Your task to perform on an android device: change notification settings in the gmail app Image 0: 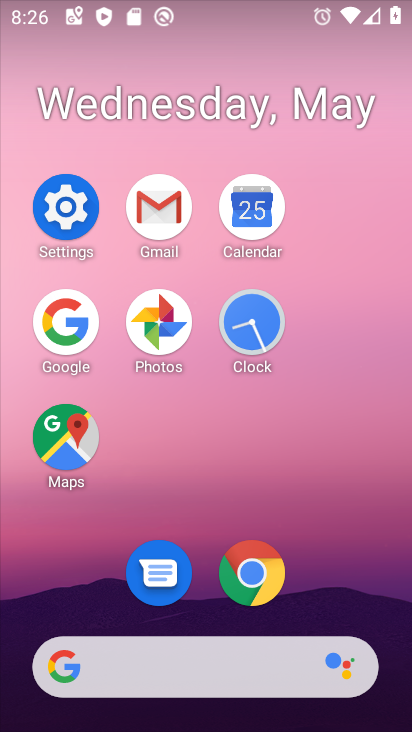
Step 0: click (169, 205)
Your task to perform on an android device: change notification settings in the gmail app Image 1: 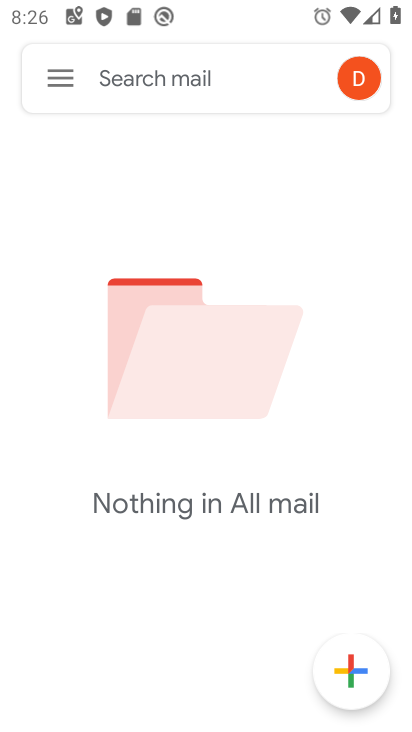
Step 1: click (55, 77)
Your task to perform on an android device: change notification settings in the gmail app Image 2: 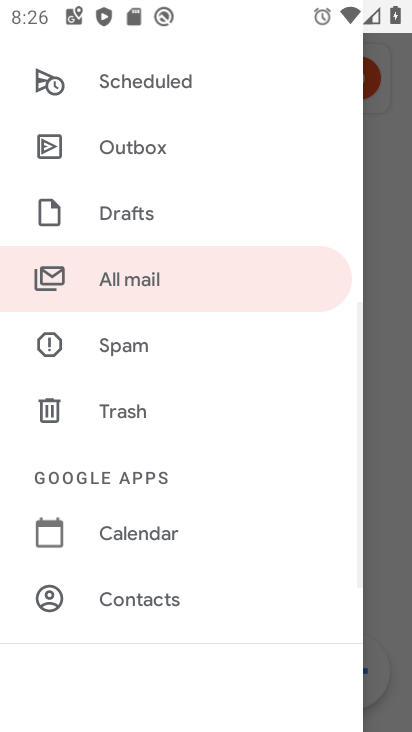
Step 2: drag from (160, 465) to (128, 131)
Your task to perform on an android device: change notification settings in the gmail app Image 3: 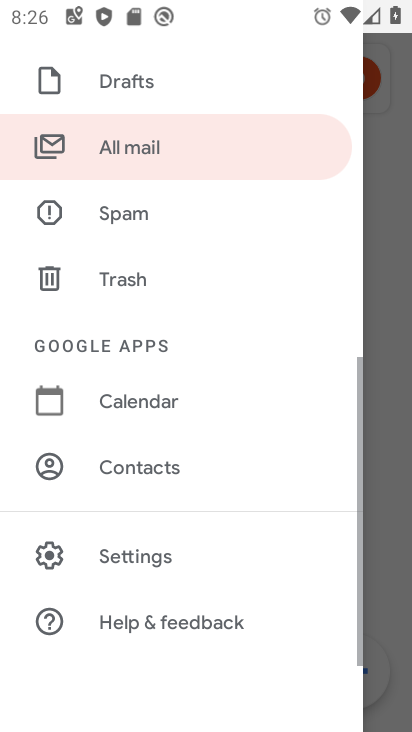
Step 3: click (154, 576)
Your task to perform on an android device: change notification settings in the gmail app Image 4: 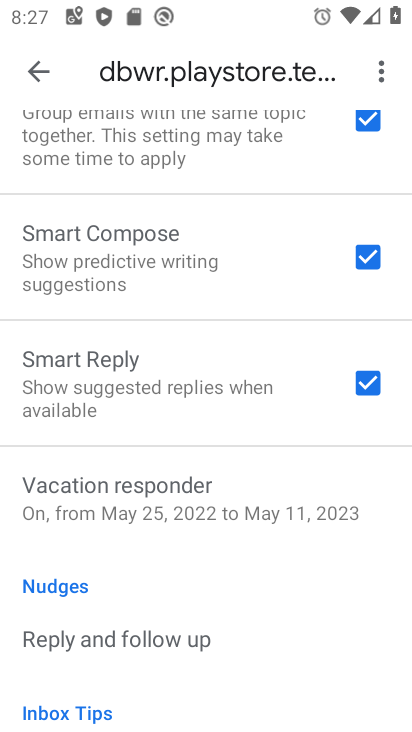
Step 4: drag from (184, 171) to (176, 703)
Your task to perform on an android device: change notification settings in the gmail app Image 5: 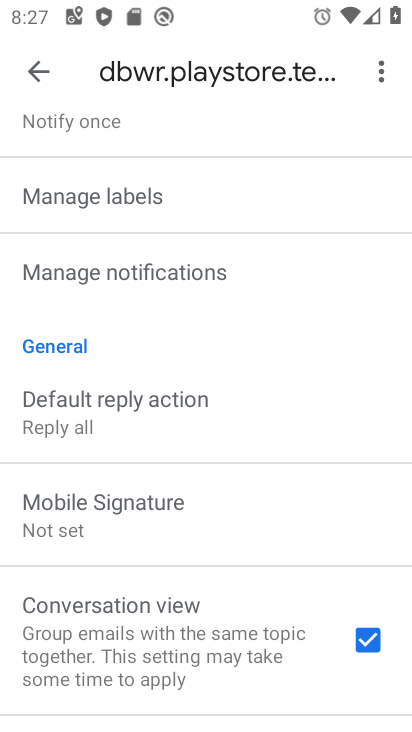
Step 5: click (153, 266)
Your task to perform on an android device: change notification settings in the gmail app Image 6: 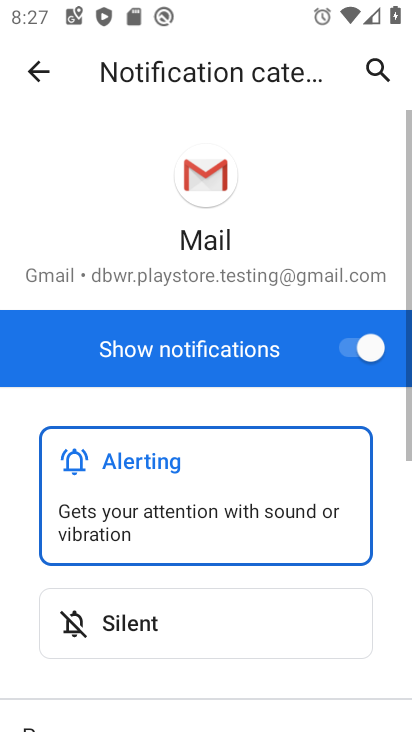
Step 6: click (358, 350)
Your task to perform on an android device: change notification settings in the gmail app Image 7: 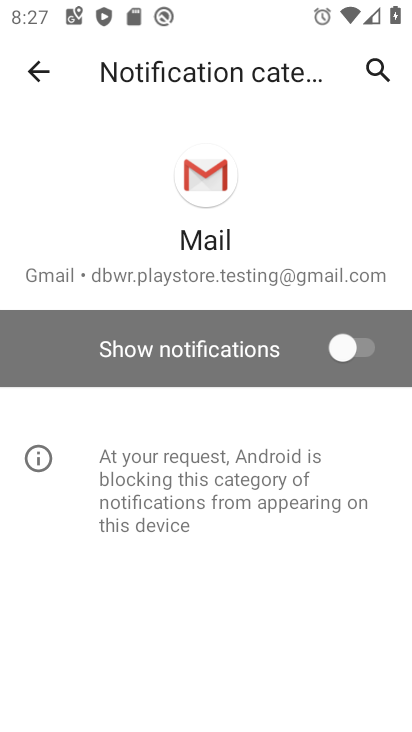
Step 7: task complete